Your task to perform on an android device: Open accessibility settings Image 0: 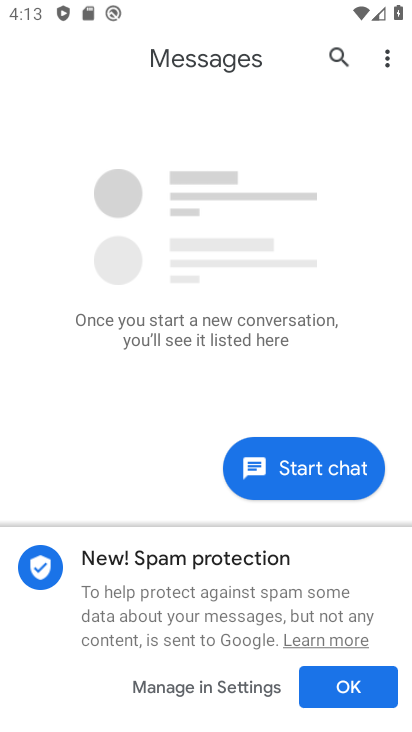
Step 0: press home button
Your task to perform on an android device: Open accessibility settings Image 1: 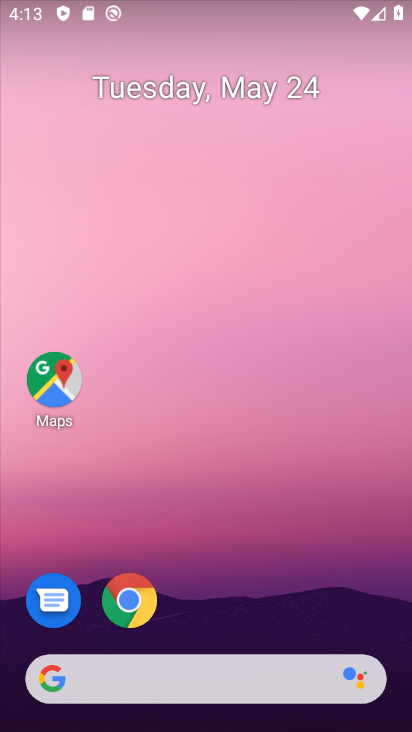
Step 1: drag from (262, 629) to (306, 11)
Your task to perform on an android device: Open accessibility settings Image 2: 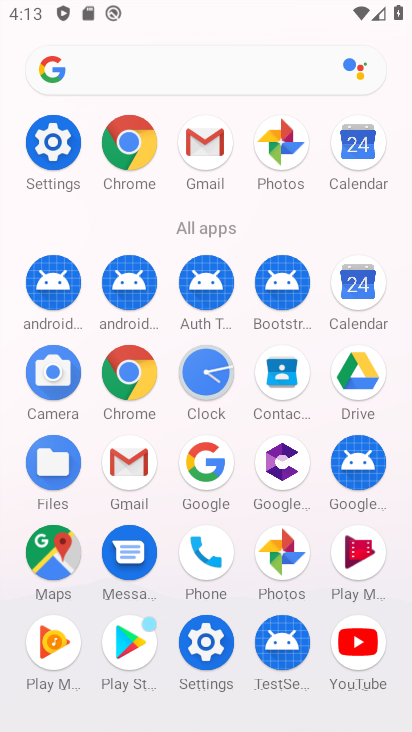
Step 2: click (51, 148)
Your task to perform on an android device: Open accessibility settings Image 3: 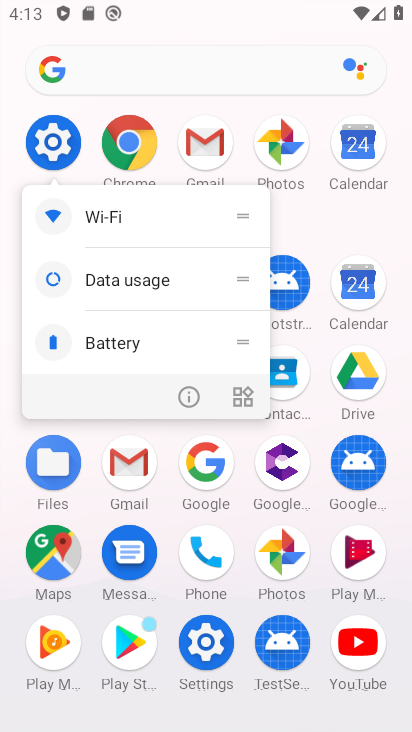
Step 3: click (51, 152)
Your task to perform on an android device: Open accessibility settings Image 4: 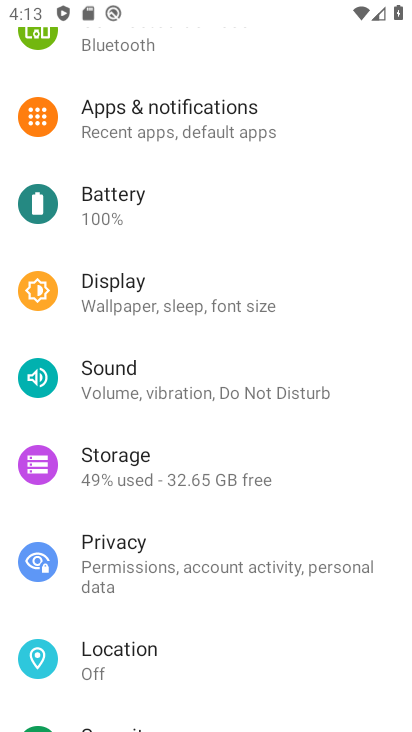
Step 4: drag from (306, 611) to (287, 92)
Your task to perform on an android device: Open accessibility settings Image 5: 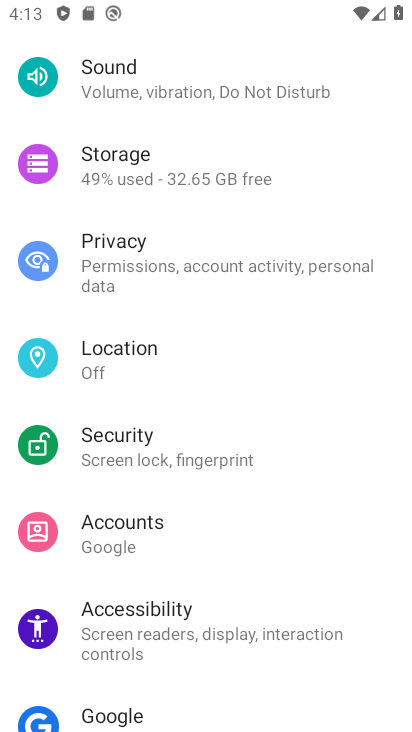
Step 5: click (123, 627)
Your task to perform on an android device: Open accessibility settings Image 6: 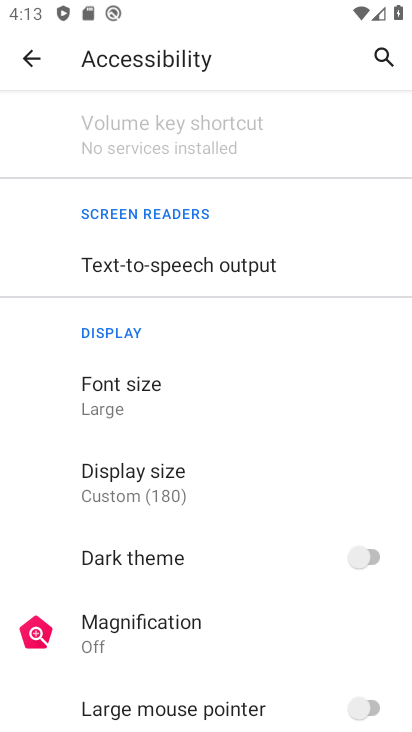
Step 6: task complete